Your task to perform on an android device: turn on priority inbox in the gmail app Image 0: 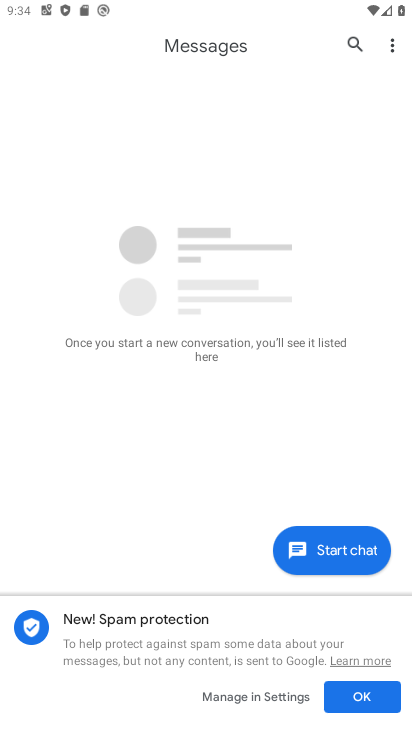
Step 0: press home button
Your task to perform on an android device: turn on priority inbox in the gmail app Image 1: 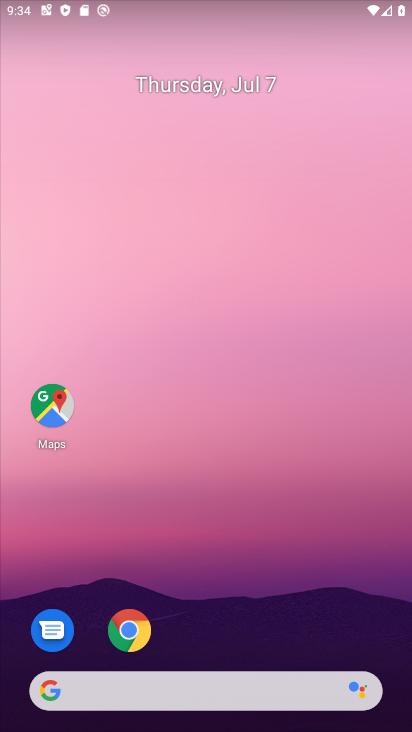
Step 1: drag from (223, 620) to (226, 158)
Your task to perform on an android device: turn on priority inbox in the gmail app Image 2: 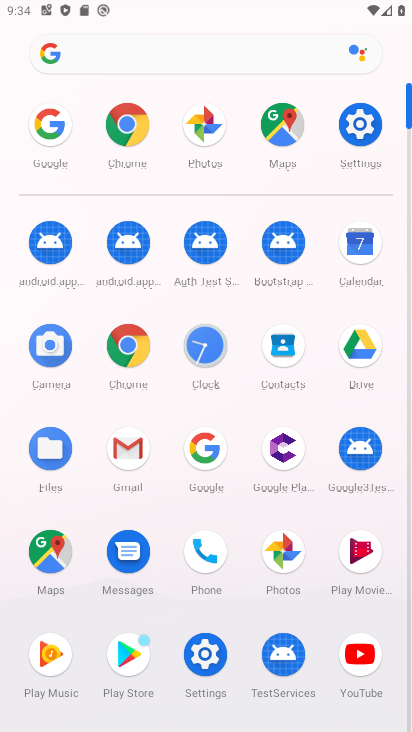
Step 2: click (139, 456)
Your task to perform on an android device: turn on priority inbox in the gmail app Image 3: 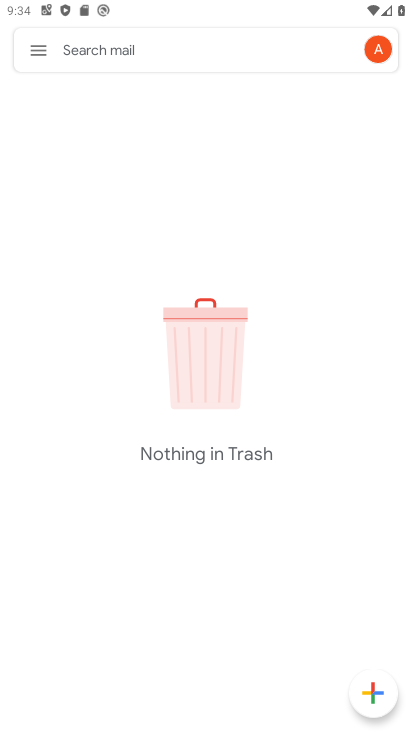
Step 3: click (36, 36)
Your task to perform on an android device: turn on priority inbox in the gmail app Image 4: 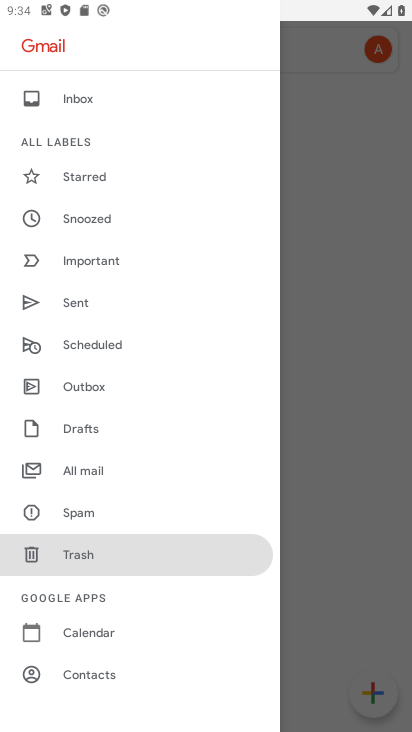
Step 4: drag from (130, 656) to (177, 231)
Your task to perform on an android device: turn on priority inbox in the gmail app Image 5: 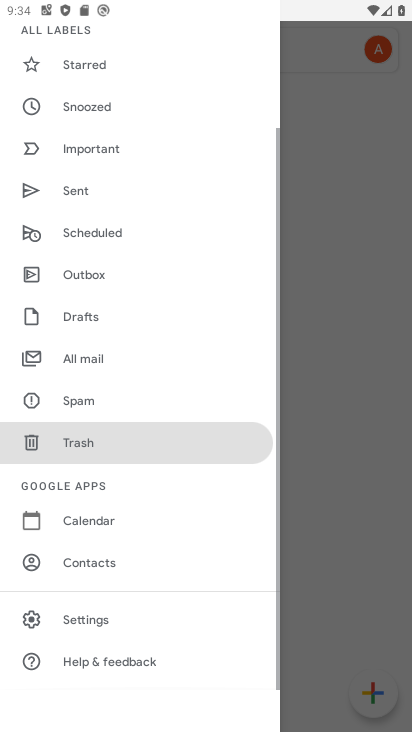
Step 5: click (83, 621)
Your task to perform on an android device: turn on priority inbox in the gmail app Image 6: 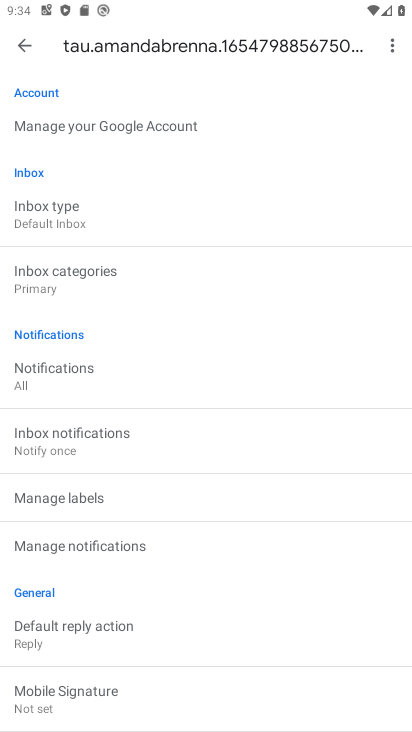
Step 6: click (127, 212)
Your task to perform on an android device: turn on priority inbox in the gmail app Image 7: 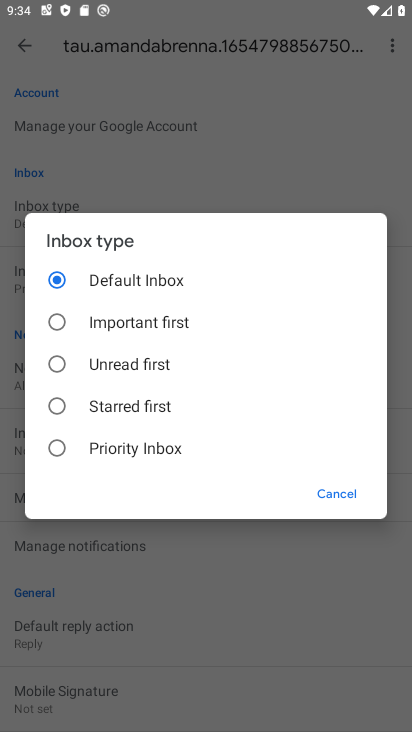
Step 7: click (115, 450)
Your task to perform on an android device: turn on priority inbox in the gmail app Image 8: 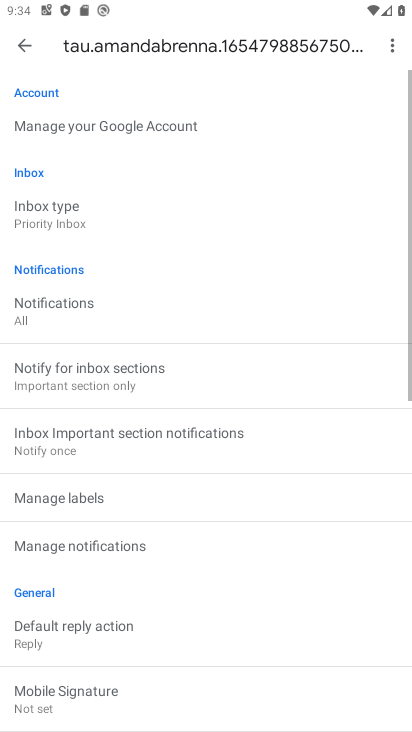
Step 8: task complete